Your task to perform on an android device: Go to battery settings Image 0: 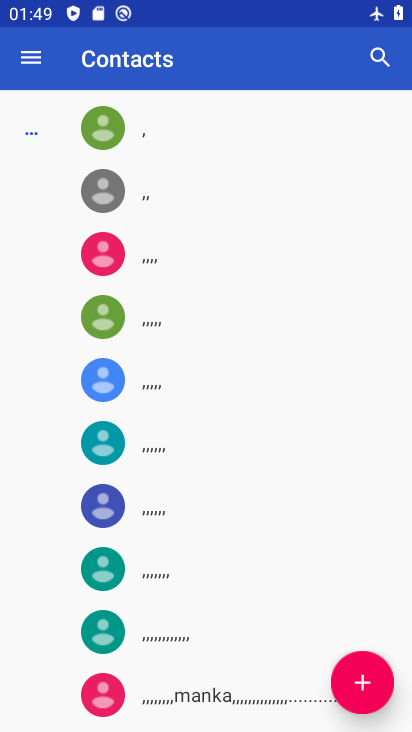
Step 0: press home button
Your task to perform on an android device: Go to battery settings Image 1: 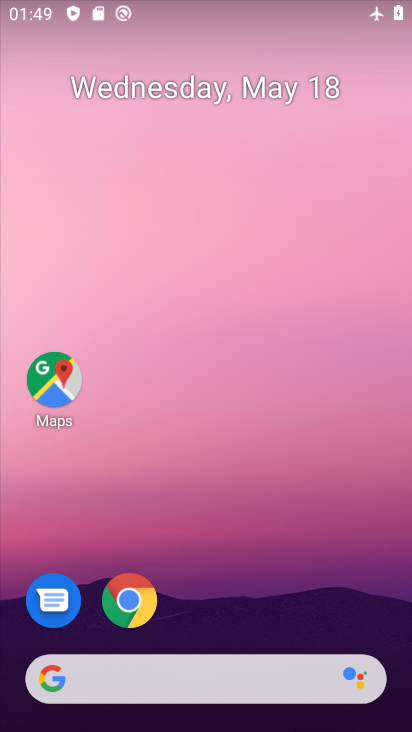
Step 1: drag from (197, 670) to (246, 278)
Your task to perform on an android device: Go to battery settings Image 2: 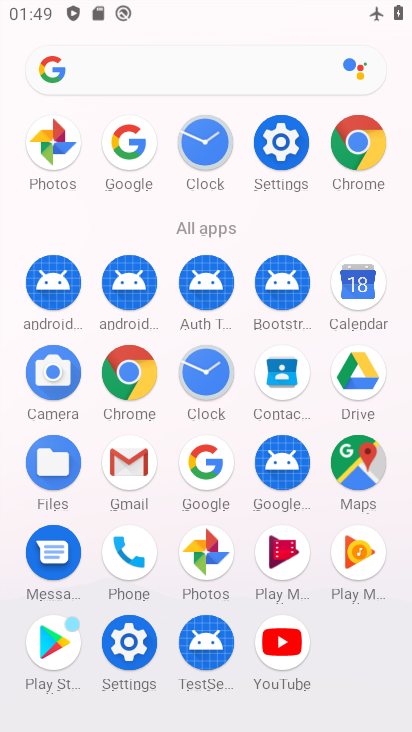
Step 2: click (282, 153)
Your task to perform on an android device: Go to battery settings Image 3: 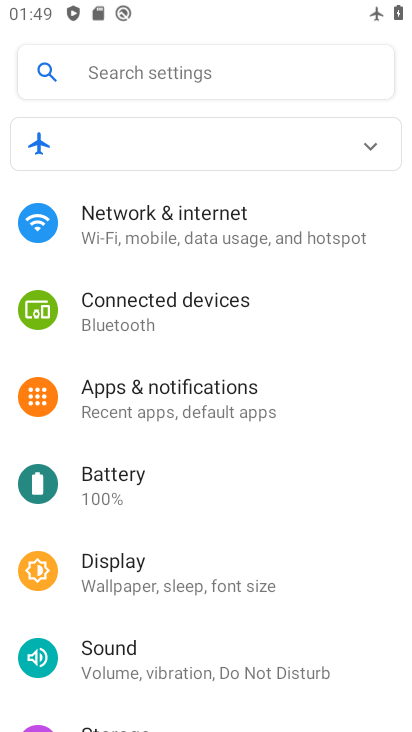
Step 3: click (116, 492)
Your task to perform on an android device: Go to battery settings Image 4: 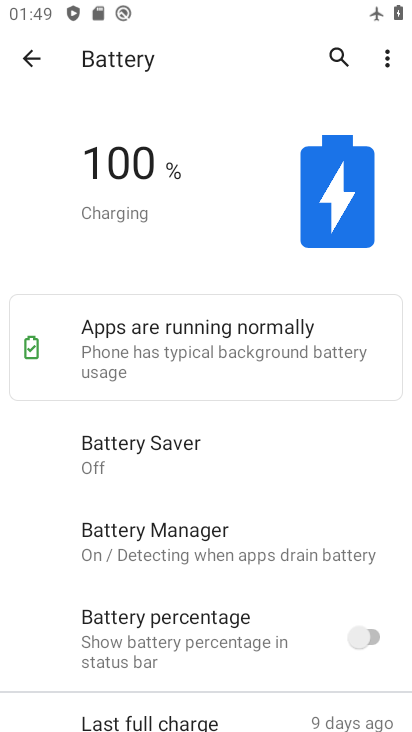
Step 4: click (390, 58)
Your task to perform on an android device: Go to battery settings Image 5: 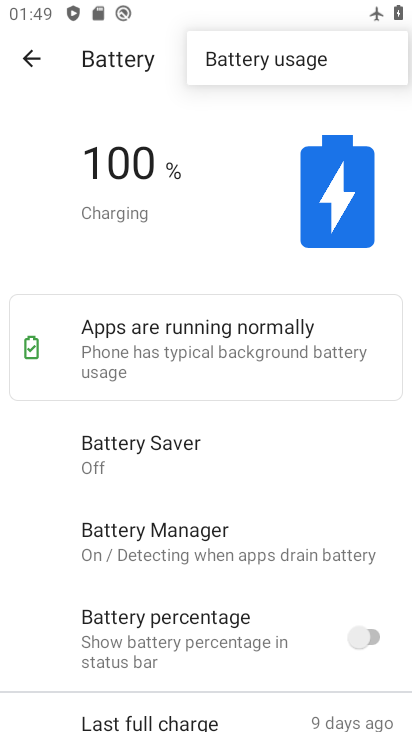
Step 5: click (245, 60)
Your task to perform on an android device: Go to battery settings Image 6: 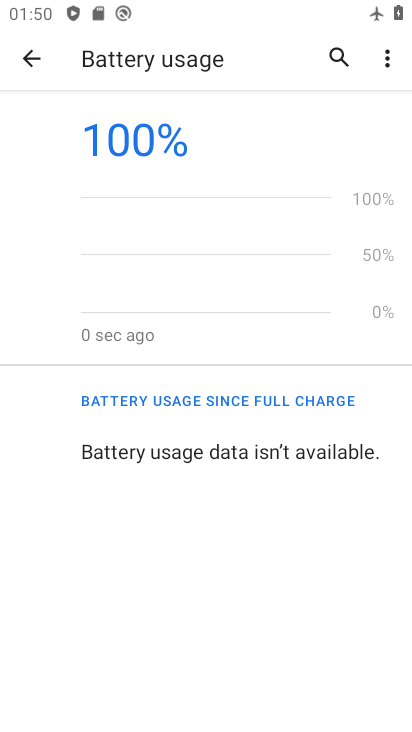
Step 6: task complete